Your task to perform on an android device: Show me recent news Image 0: 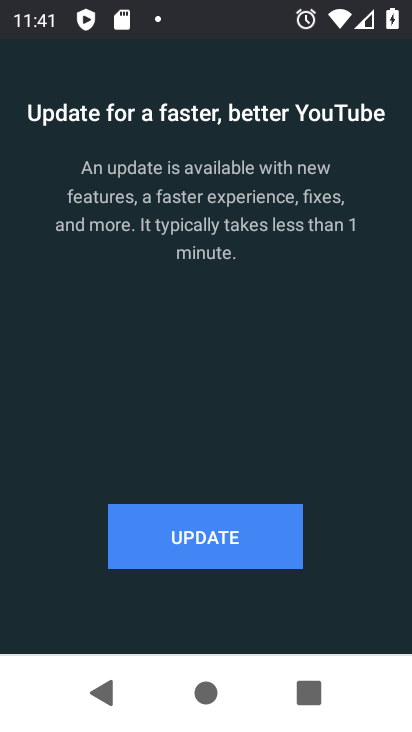
Step 0: press home button
Your task to perform on an android device: Show me recent news Image 1: 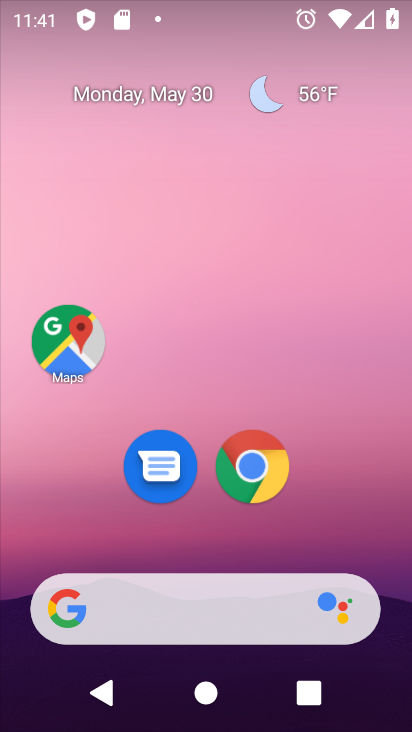
Step 1: task complete